Your task to perform on an android device: toggle improve location accuracy Image 0: 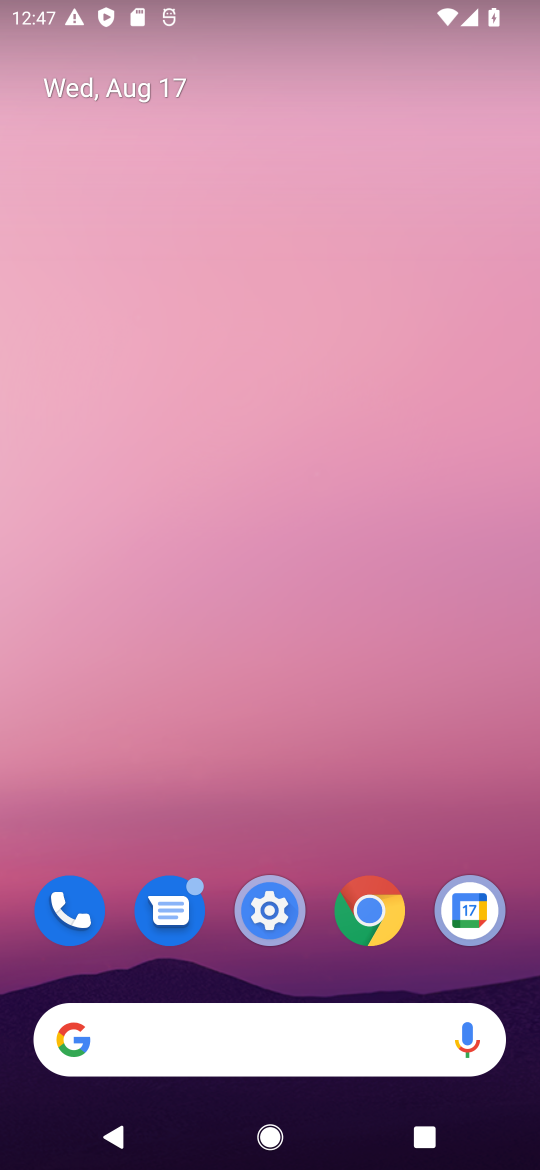
Step 0: click (279, 931)
Your task to perform on an android device: toggle improve location accuracy Image 1: 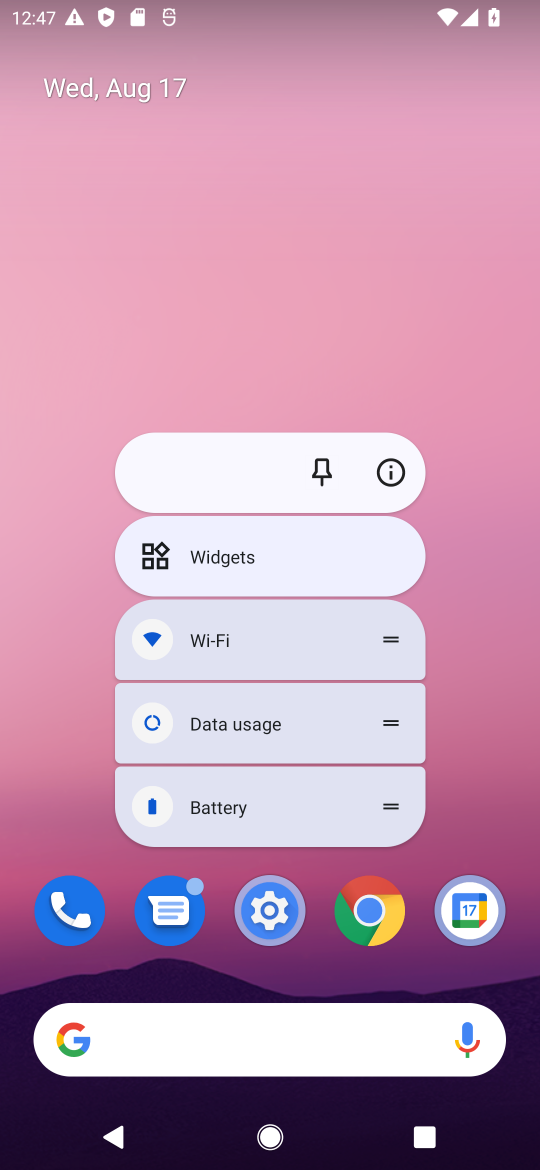
Step 1: click (242, 911)
Your task to perform on an android device: toggle improve location accuracy Image 2: 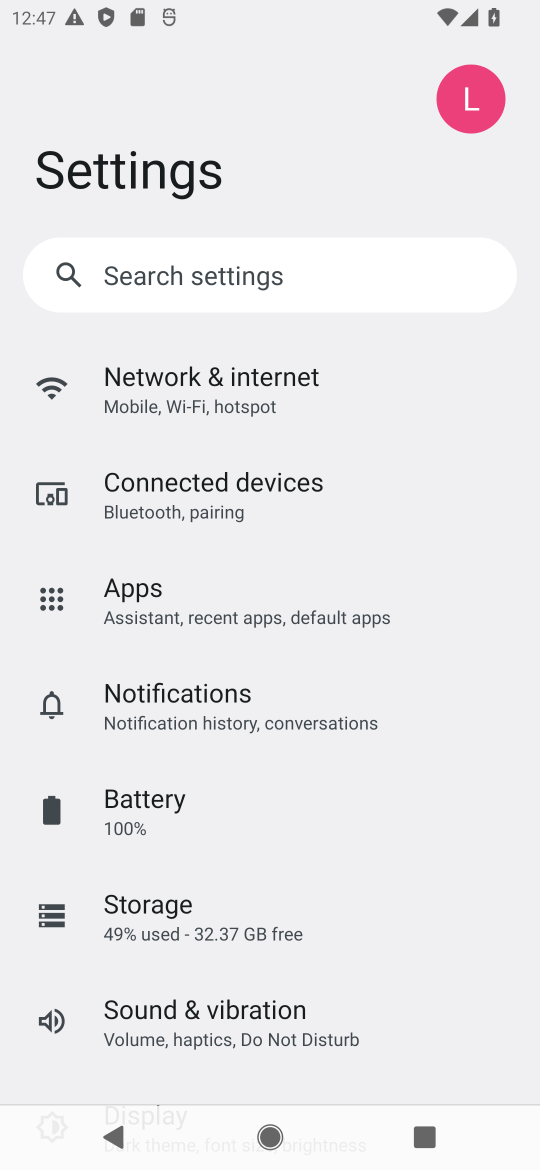
Step 2: drag from (276, 914) to (419, 196)
Your task to perform on an android device: toggle improve location accuracy Image 3: 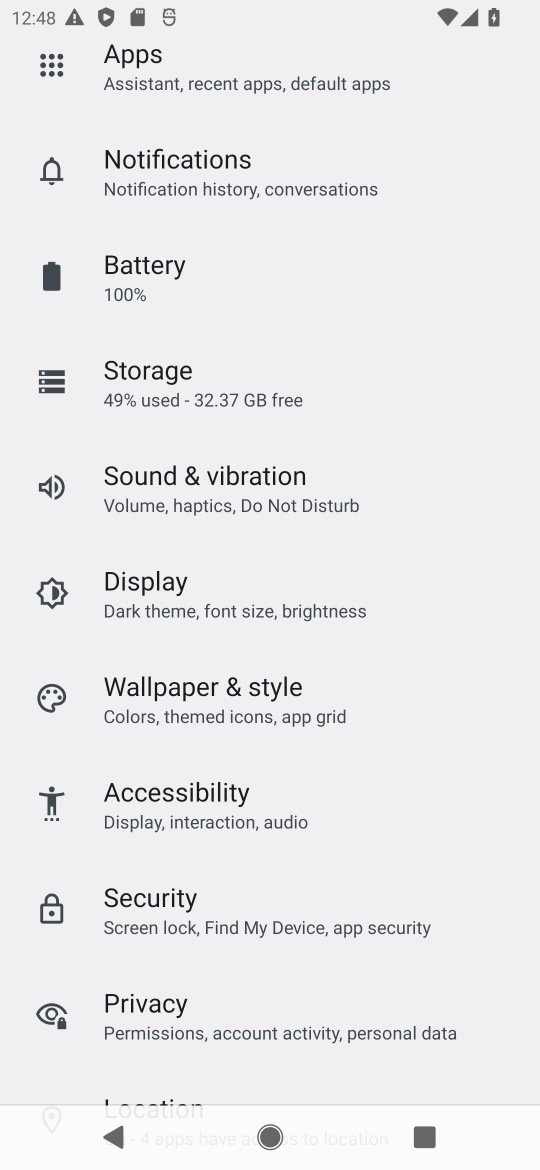
Step 3: click (162, 1087)
Your task to perform on an android device: toggle improve location accuracy Image 4: 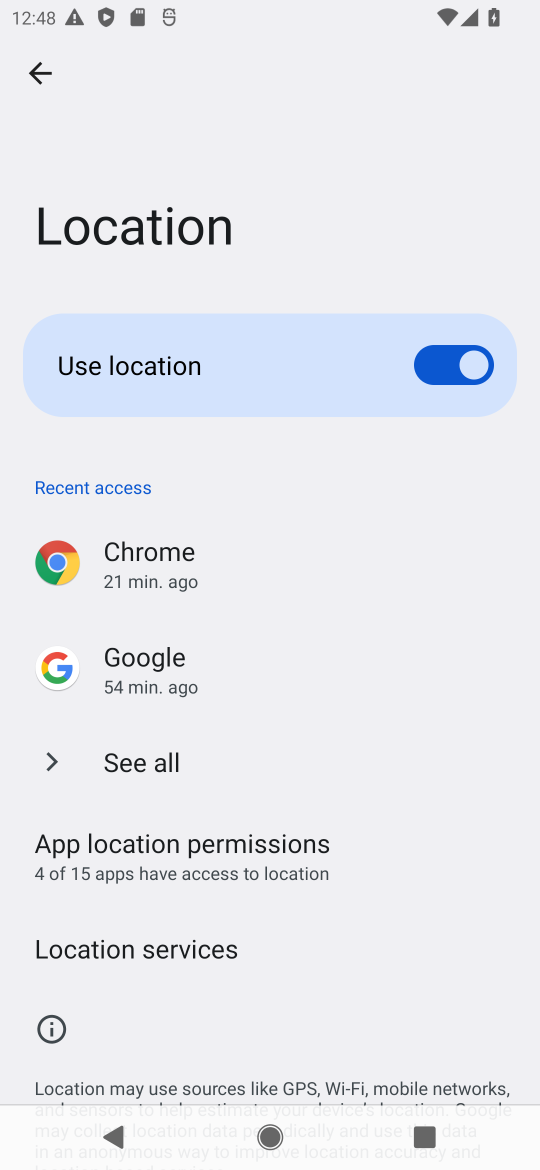
Step 4: drag from (211, 1010) to (298, 928)
Your task to perform on an android device: toggle improve location accuracy Image 5: 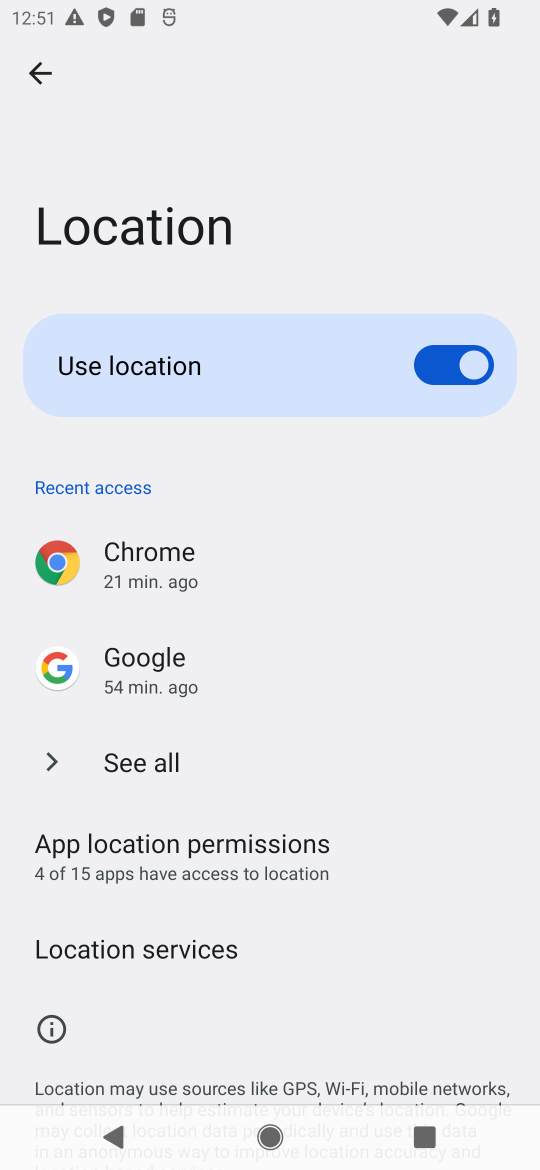
Step 5: drag from (220, 995) to (324, 294)
Your task to perform on an android device: toggle improve location accuracy Image 6: 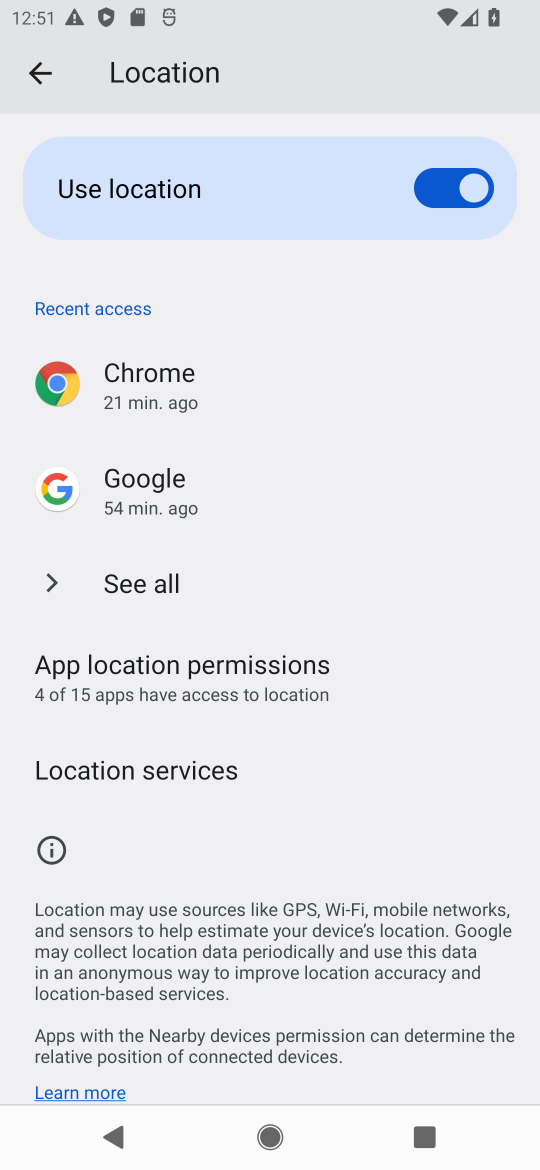
Step 6: click (142, 766)
Your task to perform on an android device: toggle improve location accuracy Image 7: 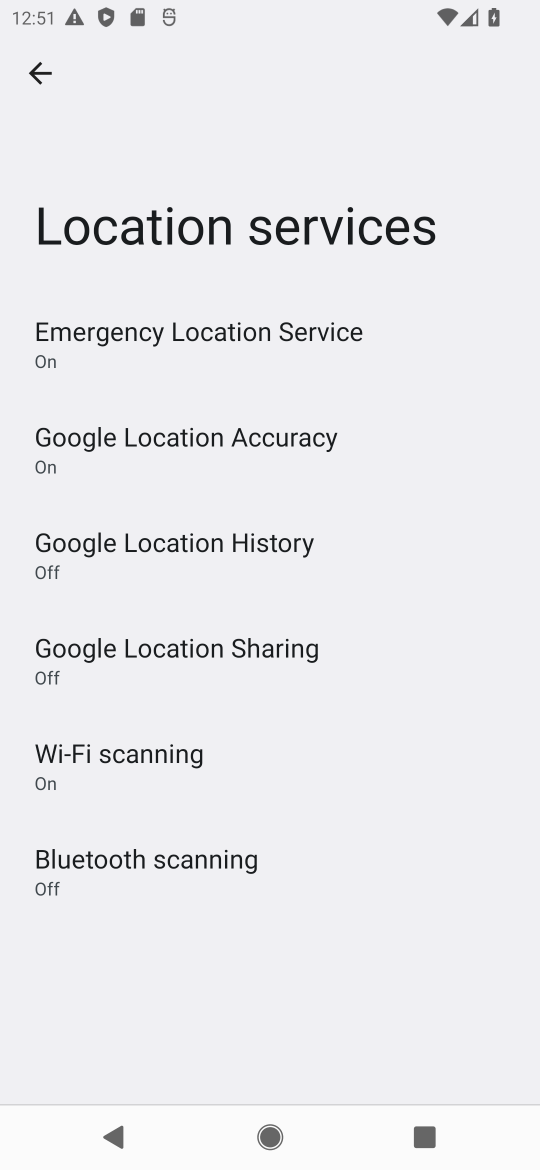
Step 7: click (237, 429)
Your task to perform on an android device: toggle improve location accuracy Image 8: 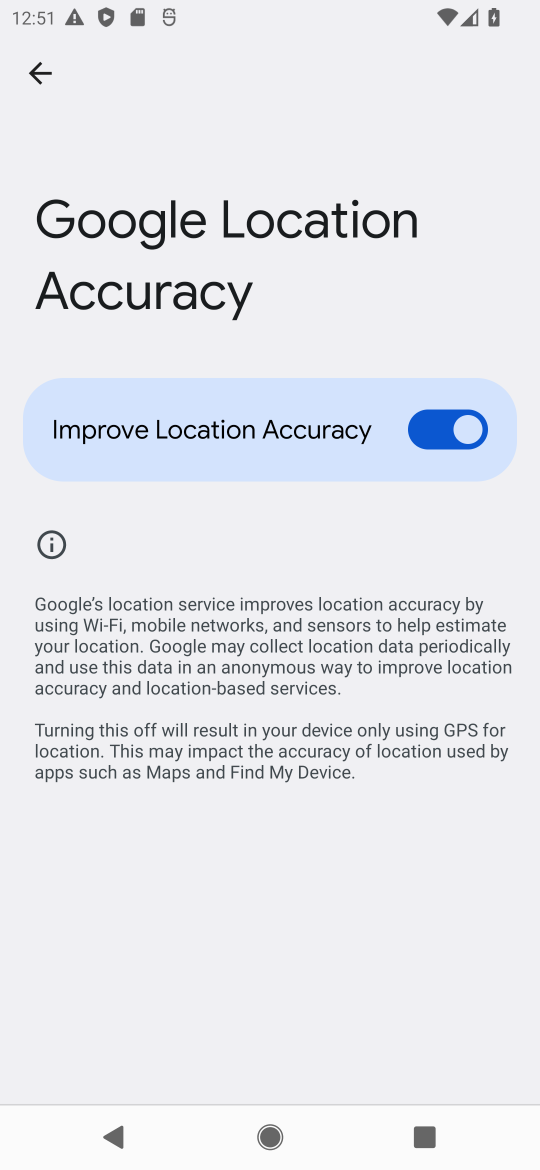
Step 8: click (463, 429)
Your task to perform on an android device: toggle improve location accuracy Image 9: 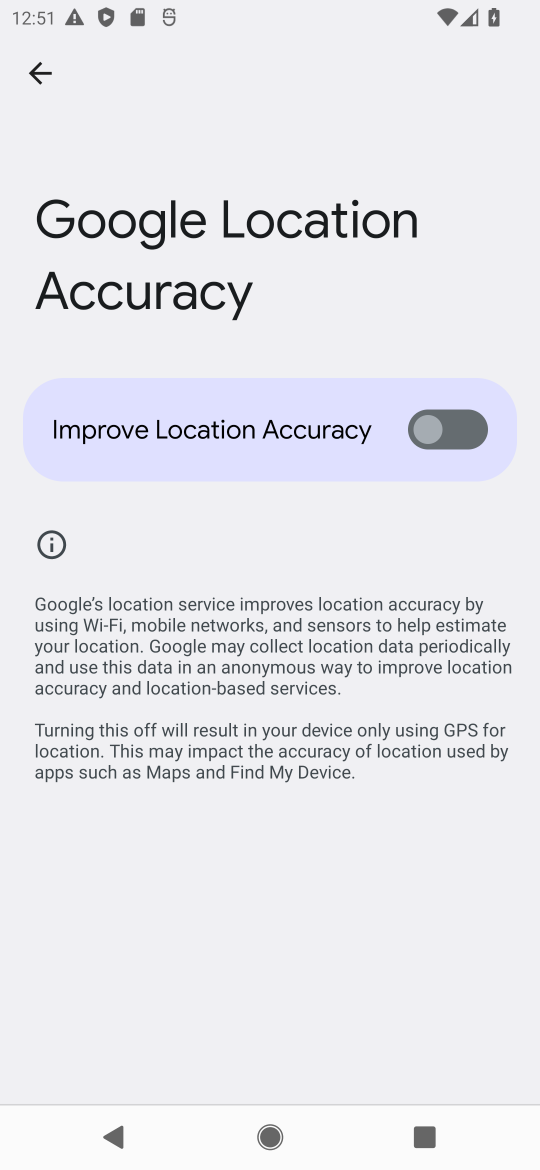
Step 9: task complete